Your task to perform on an android device: open wifi settings Image 0: 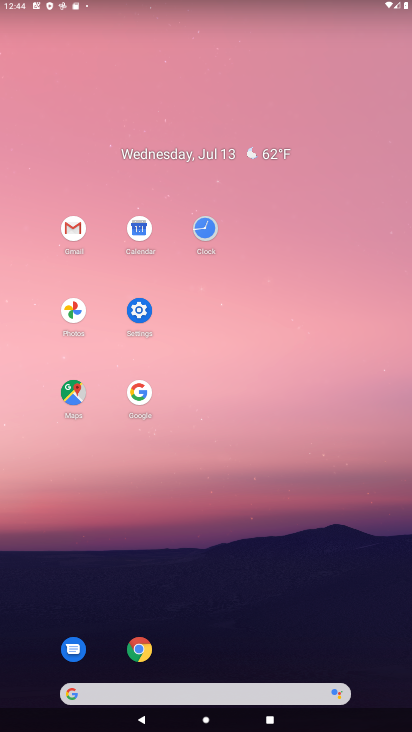
Step 0: click (128, 316)
Your task to perform on an android device: open wifi settings Image 1: 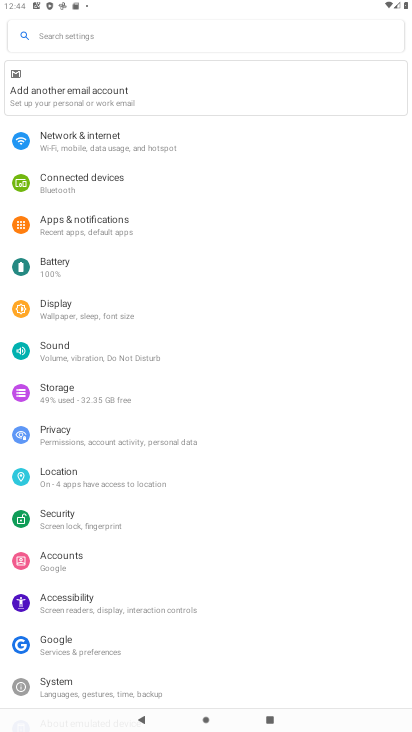
Step 1: click (133, 132)
Your task to perform on an android device: open wifi settings Image 2: 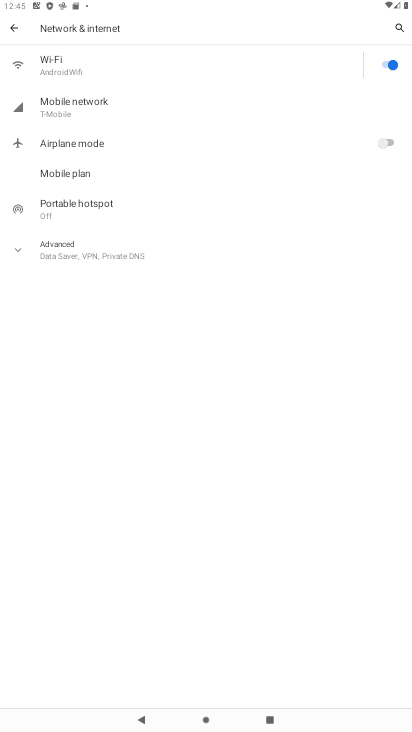
Step 2: click (217, 72)
Your task to perform on an android device: open wifi settings Image 3: 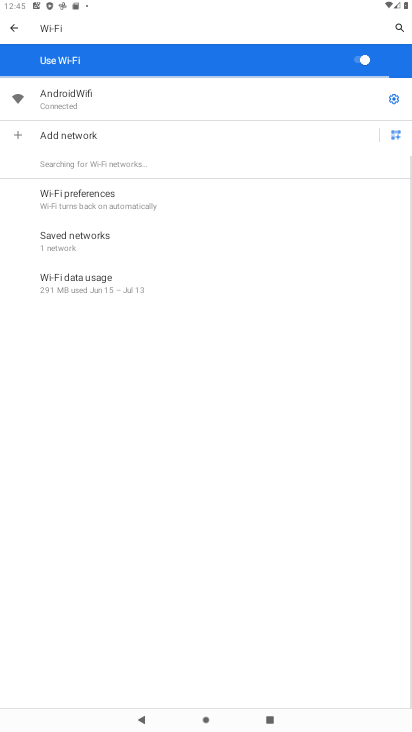
Step 3: click (395, 107)
Your task to perform on an android device: open wifi settings Image 4: 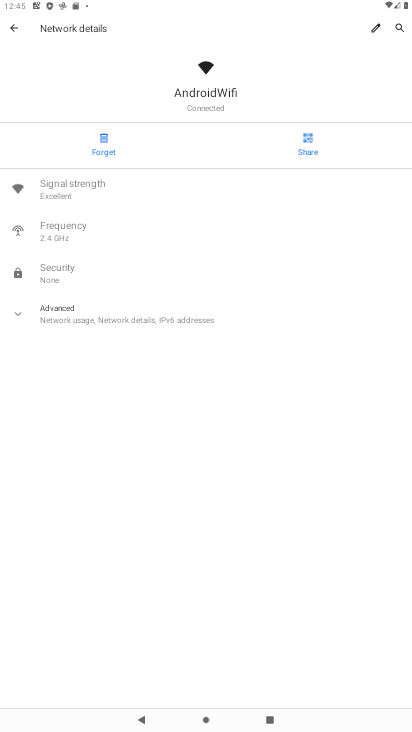
Step 4: task complete